Your task to perform on an android device: Go to accessibility settings Image 0: 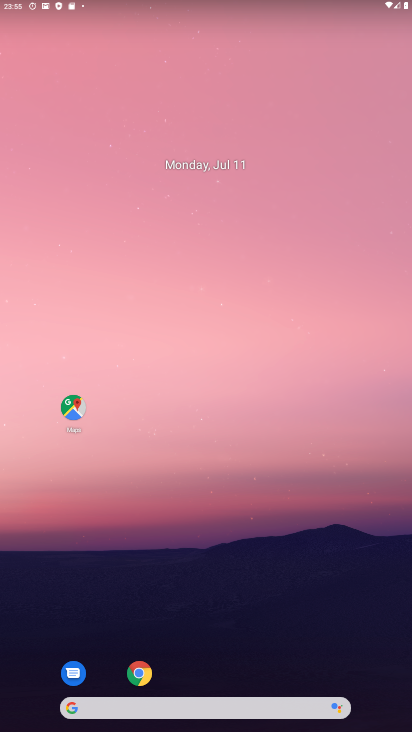
Step 0: press home button
Your task to perform on an android device: Go to accessibility settings Image 1: 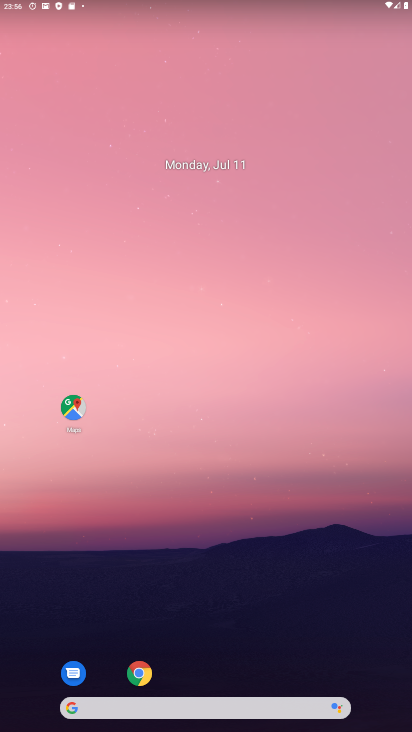
Step 1: press home button
Your task to perform on an android device: Go to accessibility settings Image 2: 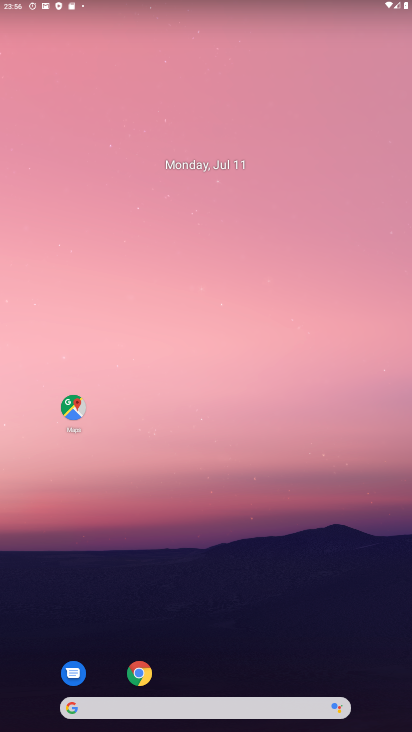
Step 2: drag from (255, 522) to (226, 160)
Your task to perform on an android device: Go to accessibility settings Image 3: 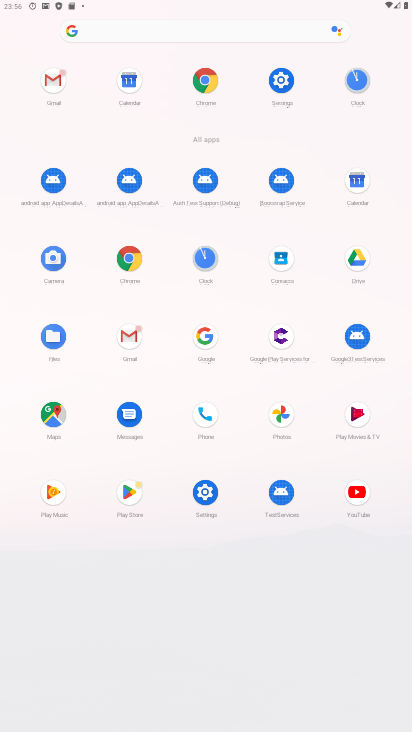
Step 3: click (275, 83)
Your task to perform on an android device: Go to accessibility settings Image 4: 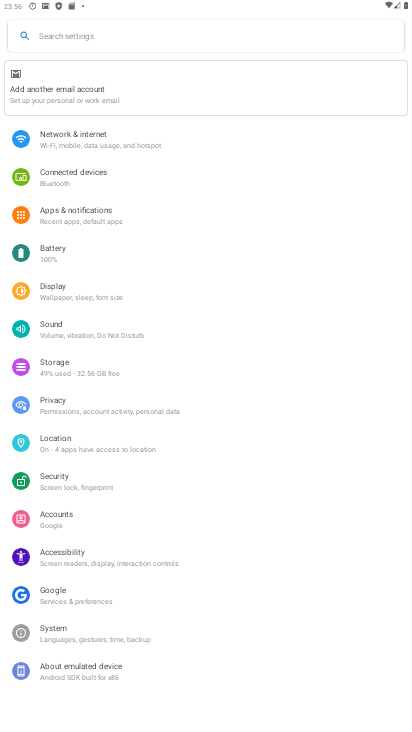
Step 4: click (70, 554)
Your task to perform on an android device: Go to accessibility settings Image 5: 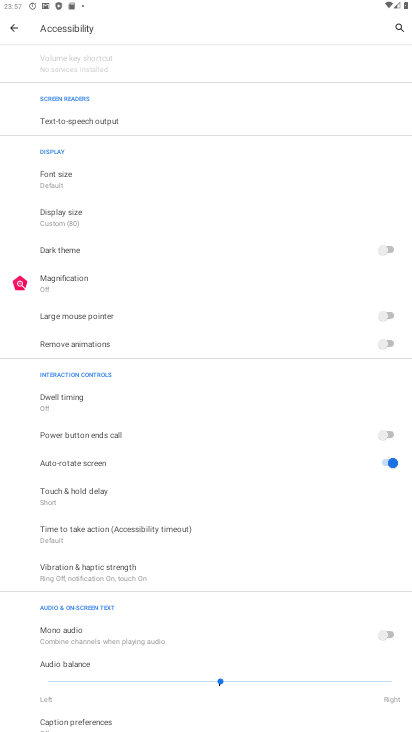
Step 5: task complete